Your task to perform on an android device: Open accessibility settings Image 0: 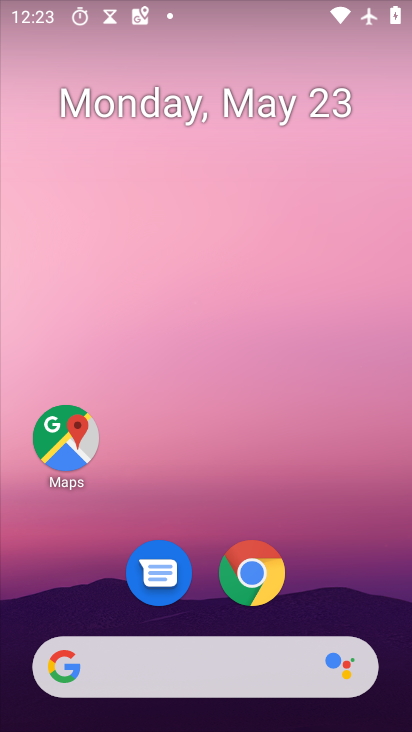
Step 0: press home button
Your task to perform on an android device: Open accessibility settings Image 1: 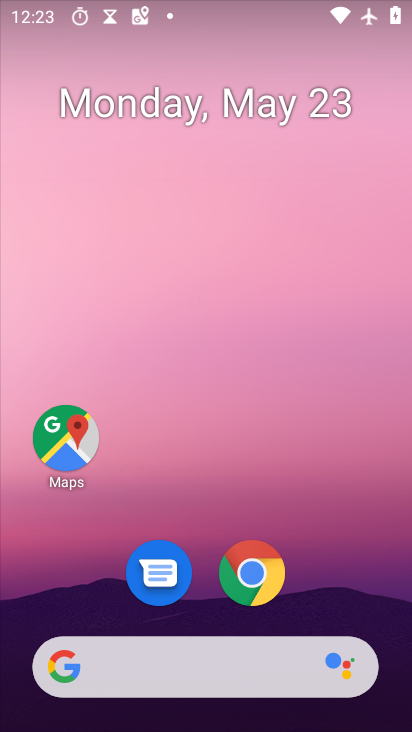
Step 1: drag from (151, 664) to (308, 65)
Your task to perform on an android device: Open accessibility settings Image 2: 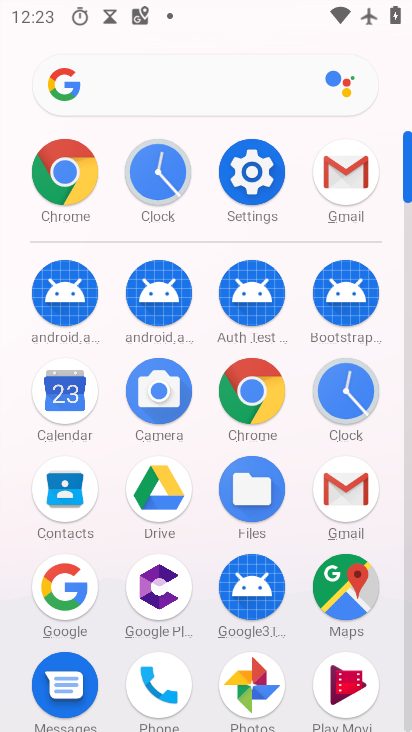
Step 2: click (257, 176)
Your task to perform on an android device: Open accessibility settings Image 3: 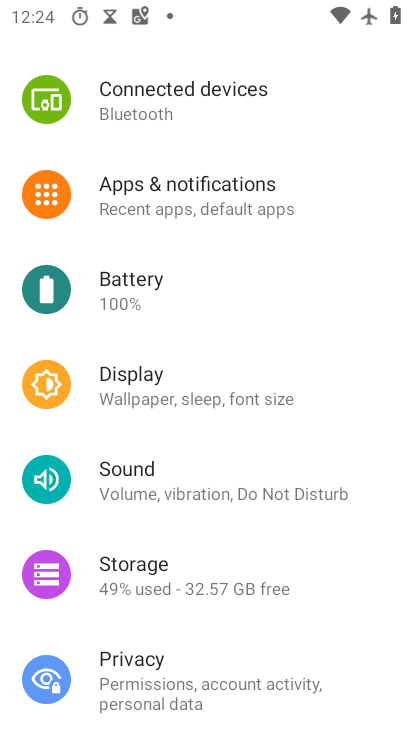
Step 3: drag from (291, 504) to (356, 266)
Your task to perform on an android device: Open accessibility settings Image 4: 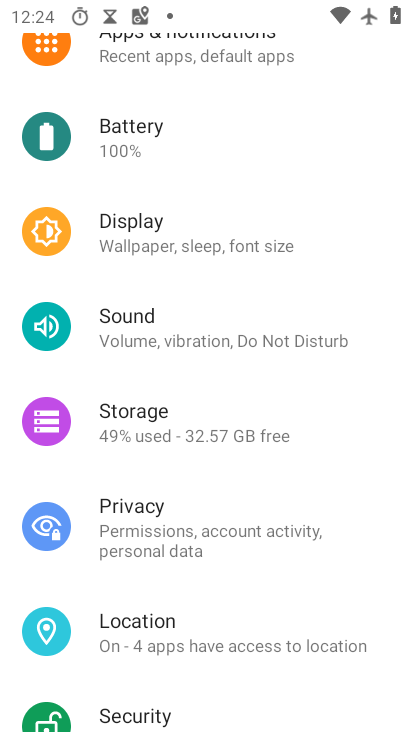
Step 4: drag from (248, 635) to (356, 193)
Your task to perform on an android device: Open accessibility settings Image 5: 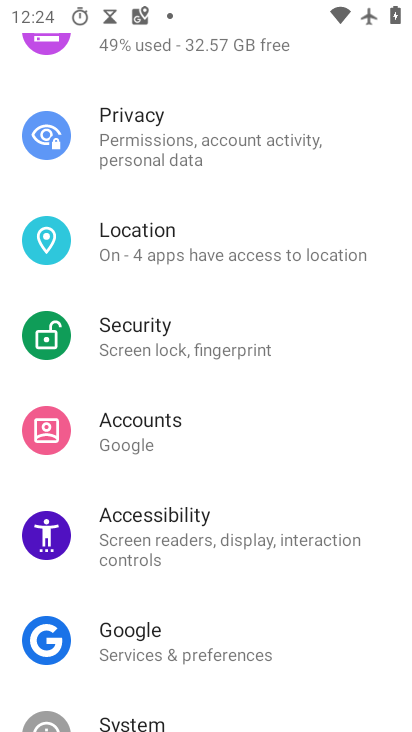
Step 5: click (175, 517)
Your task to perform on an android device: Open accessibility settings Image 6: 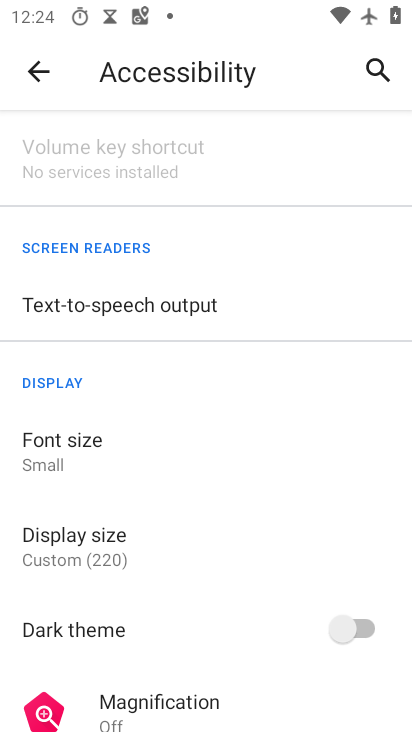
Step 6: task complete